Your task to perform on an android device: change the clock display to show seconds Image 0: 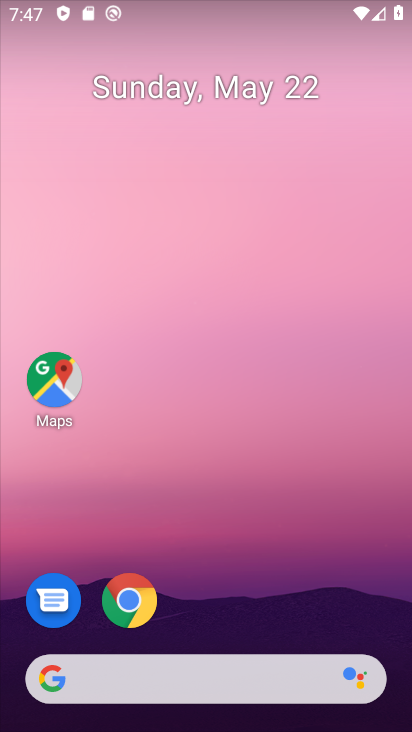
Step 0: drag from (311, 172) to (328, 49)
Your task to perform on an android device: change the clock display to show seconds Image 1: 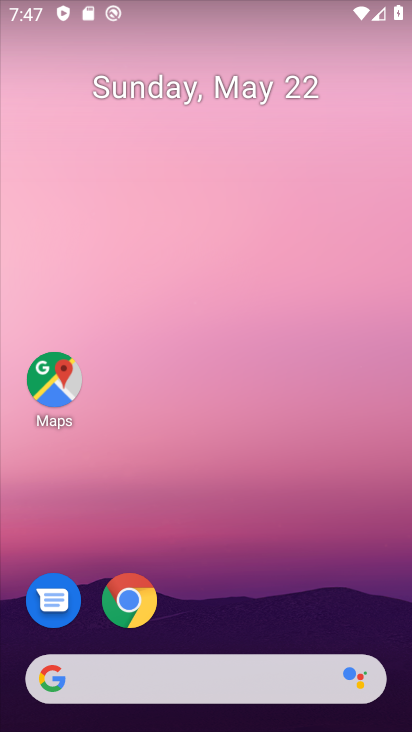
Step 1: drag from (254, 553) to (328, 265)
Your task to perform on an android device: change the clock display to show seconds Image 2: 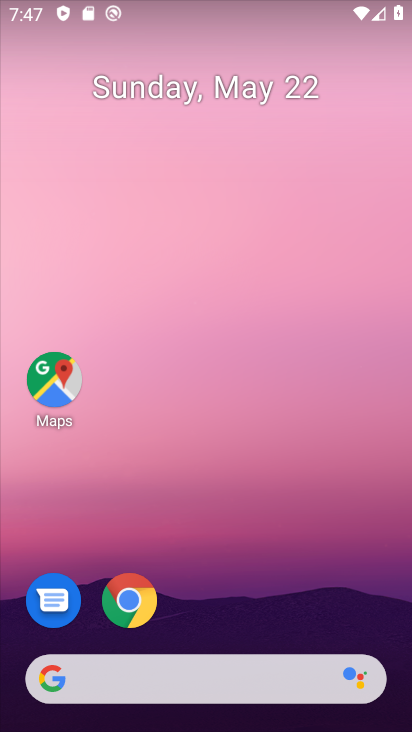
Step 2: drag from (219, 652) to (250, 282)
Your task to perform on an android device: change the clock display to show seconds Image 3: 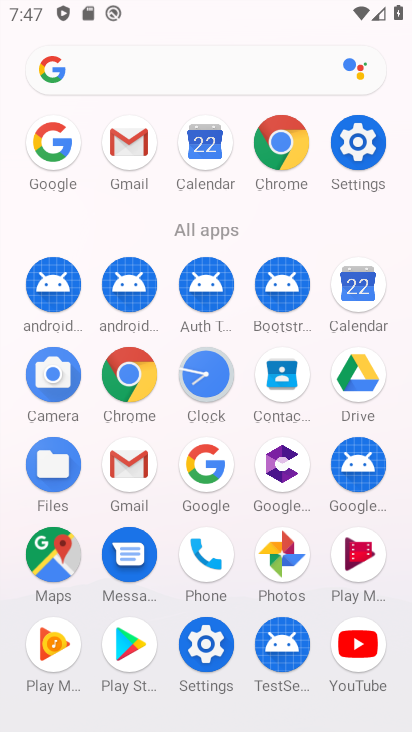
Step 3: click (220, 386)
Your task to perform on an android device: change the clock display to show seconds Image 4: 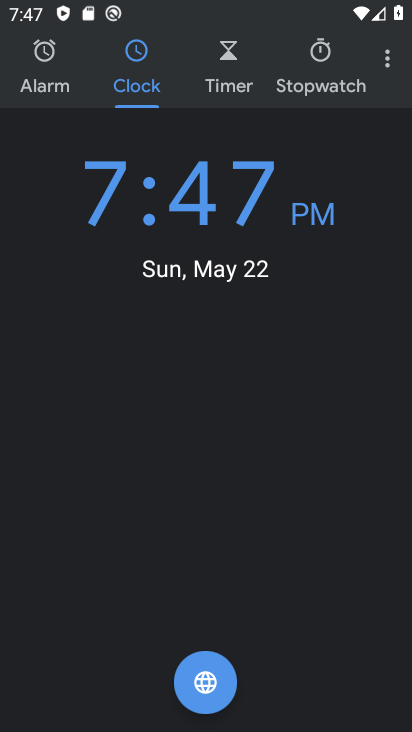
Step 4: click (389, 58)
Your task to perform on an android device: change the clock display to show seconds Image 5: 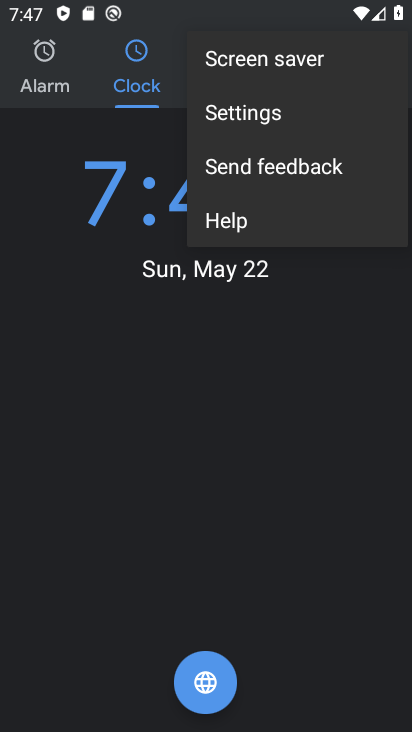
Step 5: click (242, 112)
Your task to perform on an android device: change the clock display to show seconds Image 6: 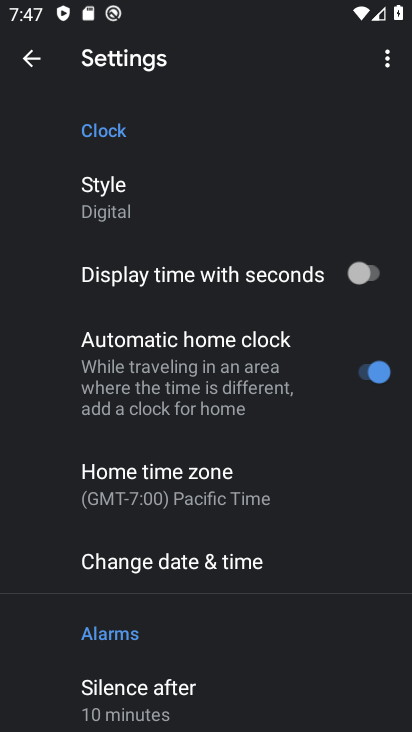
Step 6: click (373, 282)
Your task to perform on an android device: change the clock display to show seconds Image 7: 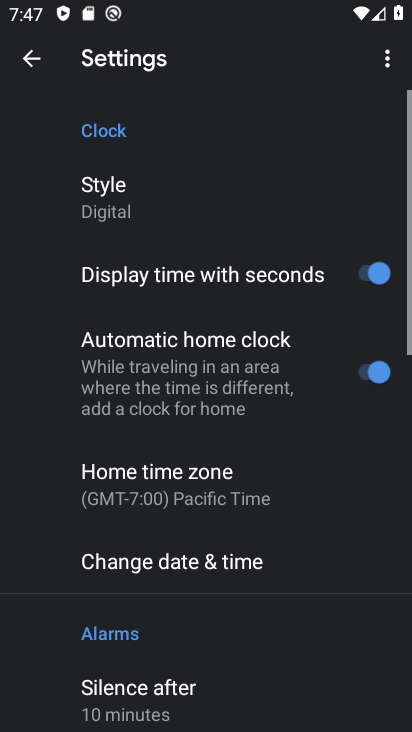
Step 7: task complete